Your task to perform on an android device: install app "Facebook Messenger" Image 0: 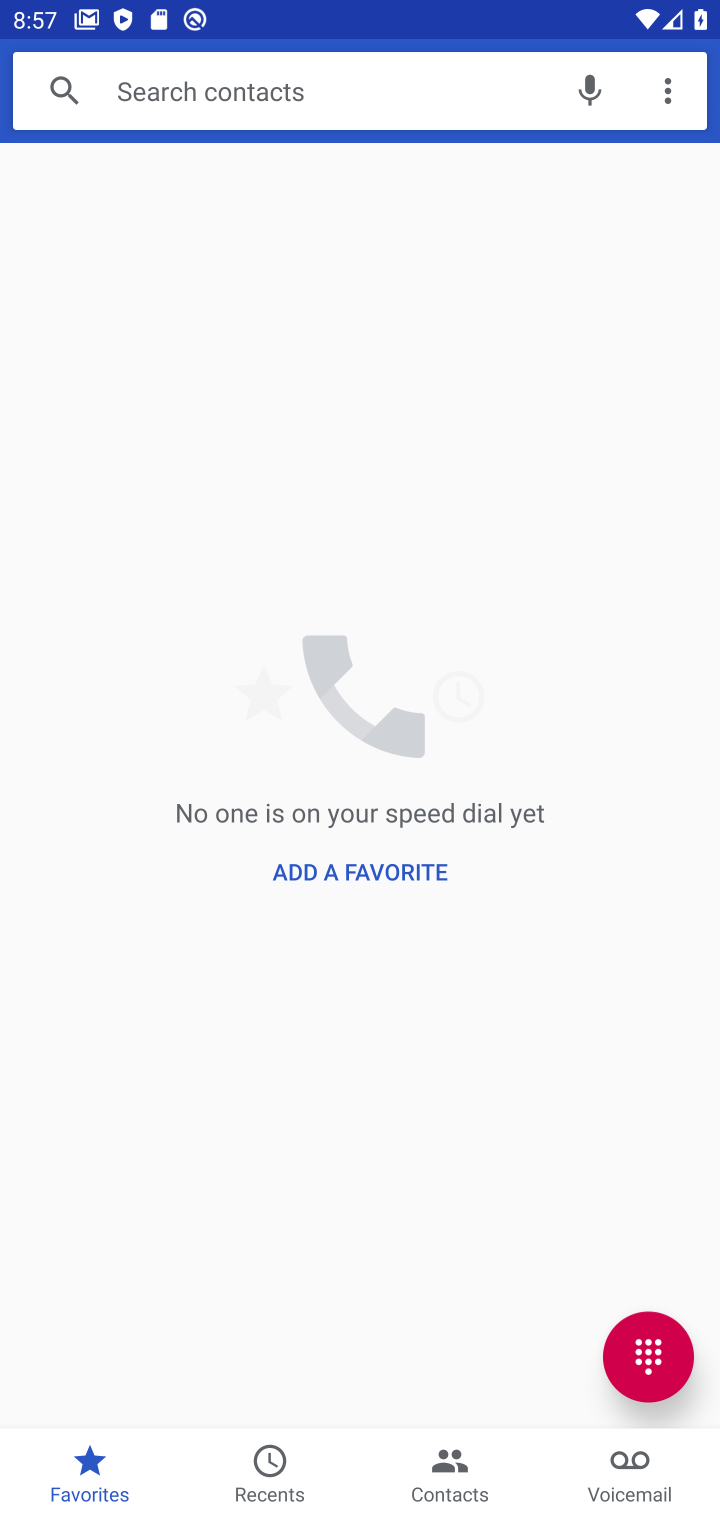
Step 0: press home button
Your task to perform on an android device: install app "Facebook Messenger" Image 1: 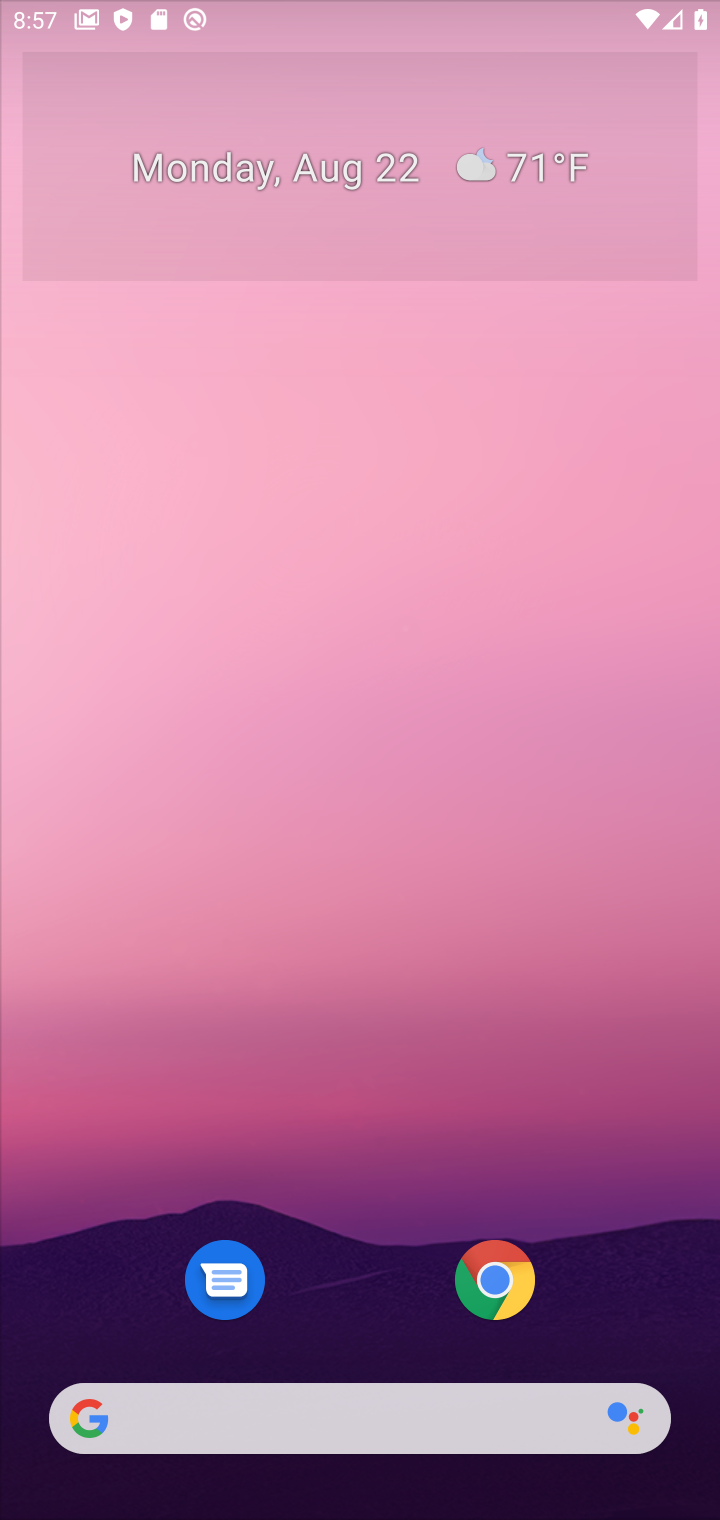
Step 1: drag from (273, 761) to (308, 20)
Your task to perform on an android device: install app "Facebook Messenger" Image 2: 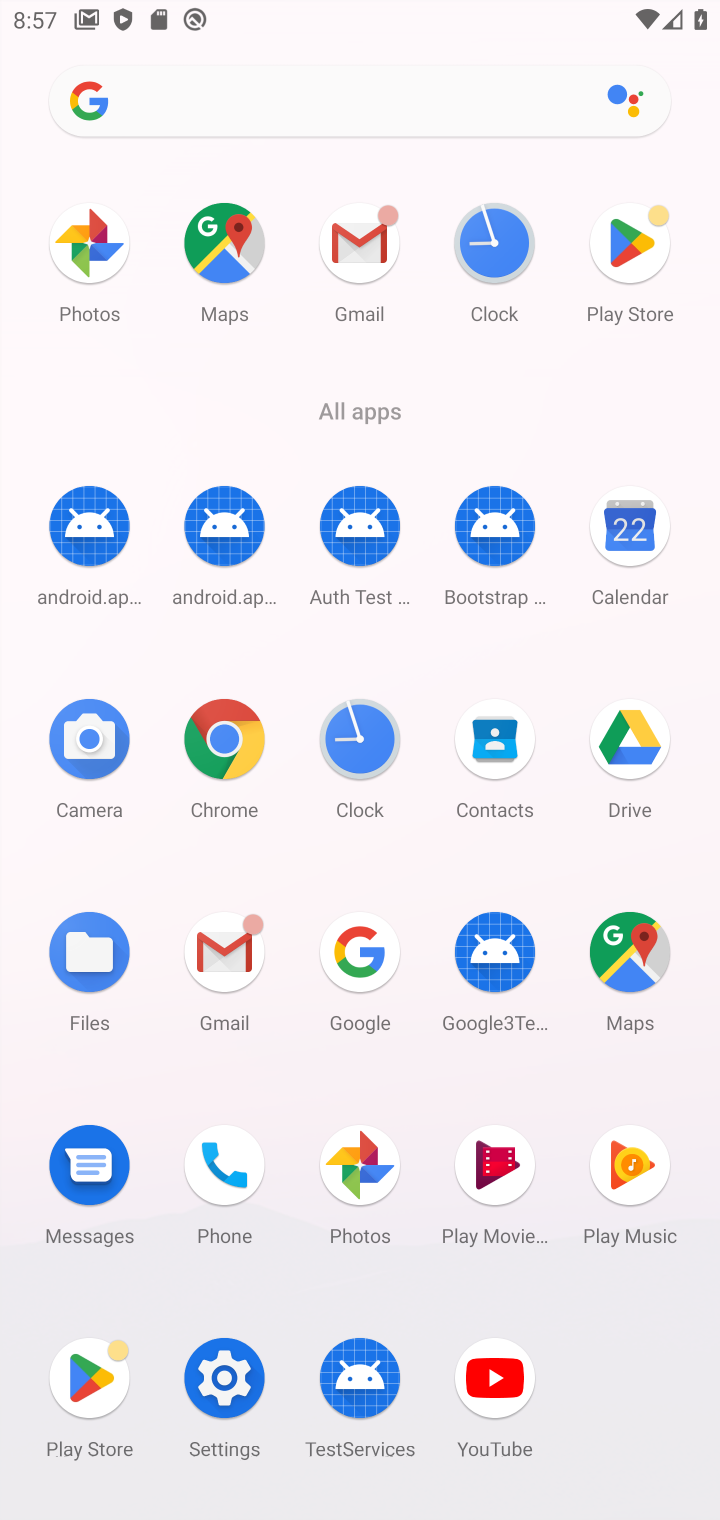
Step 2: click (636, 229)
Your task to perform on an android device: install app "Facebook Messenger" Image 3: 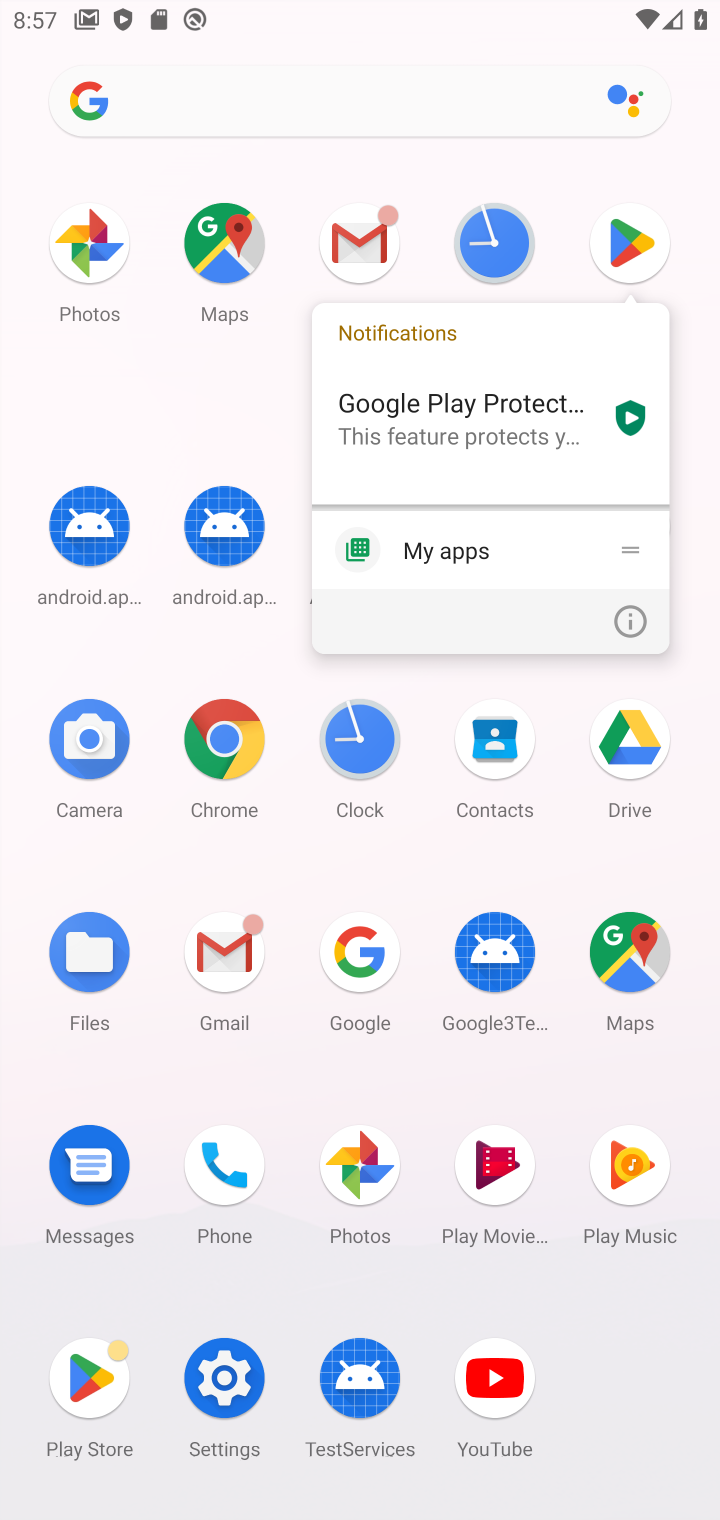
Step 3: click (636, 227)
Your task to perform on an android device: install app "Facebook Messenger" Image 4: 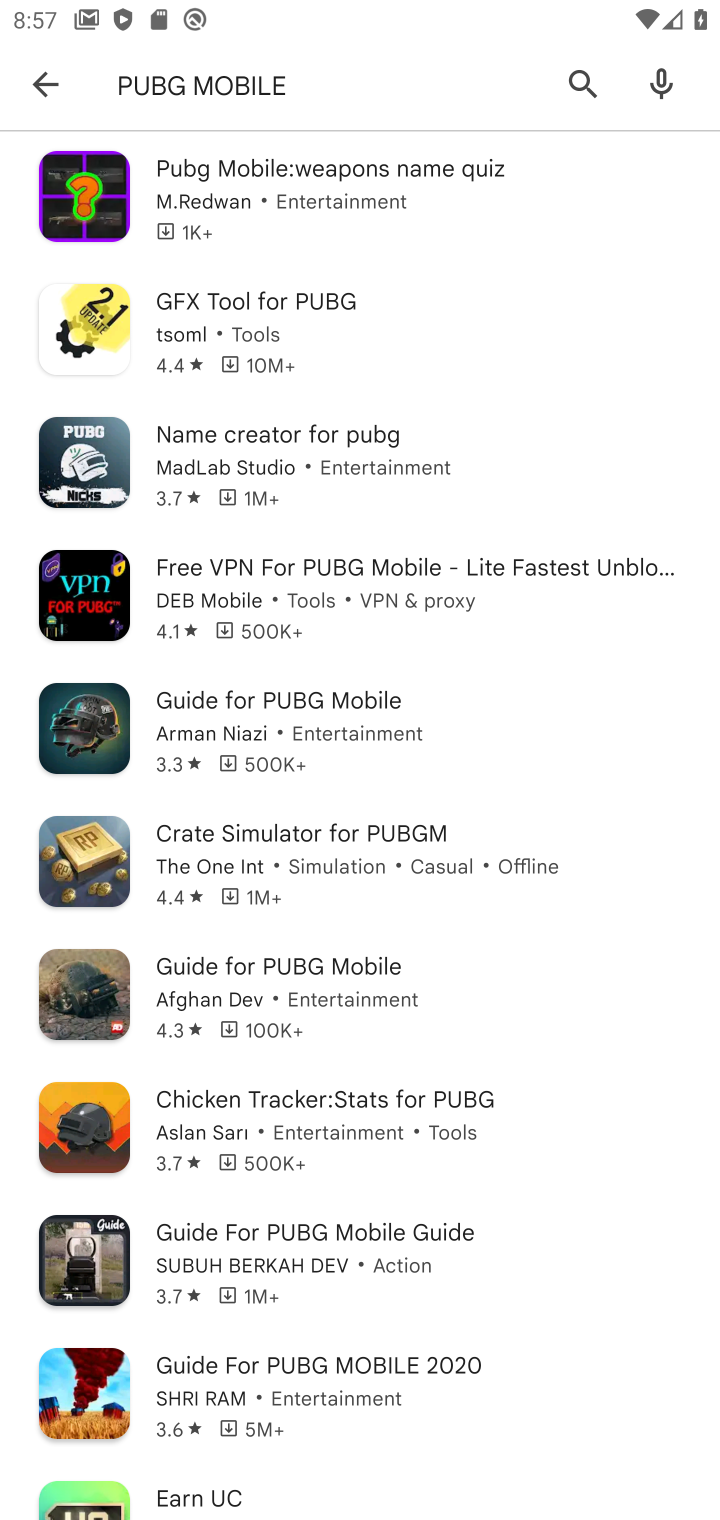
Step 4: press back button
Your task to perform on an android device: install app "Facebook Messenger" Image 5: 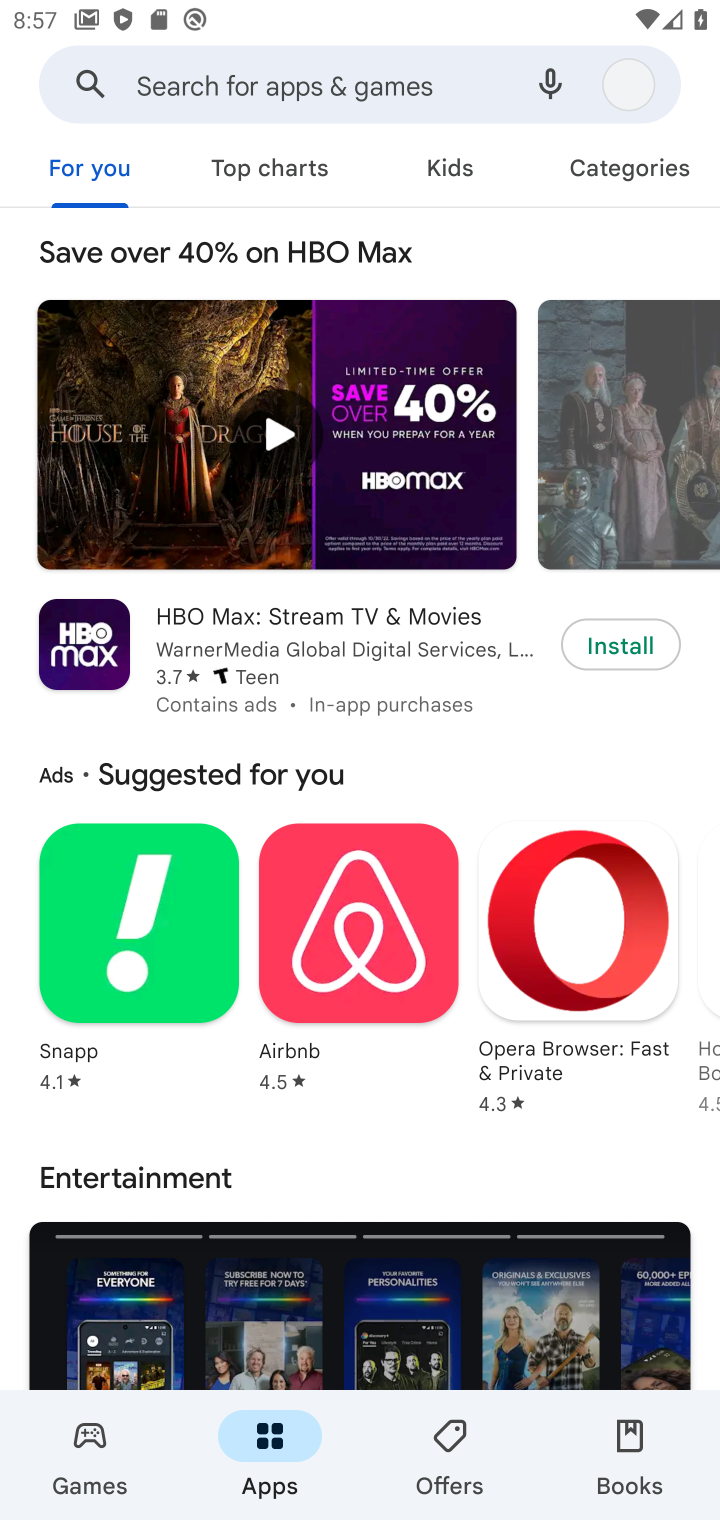
Step 5: click (235, 93)
Your task to perform on an android device: install app "Facebook Messenger" Image 6: 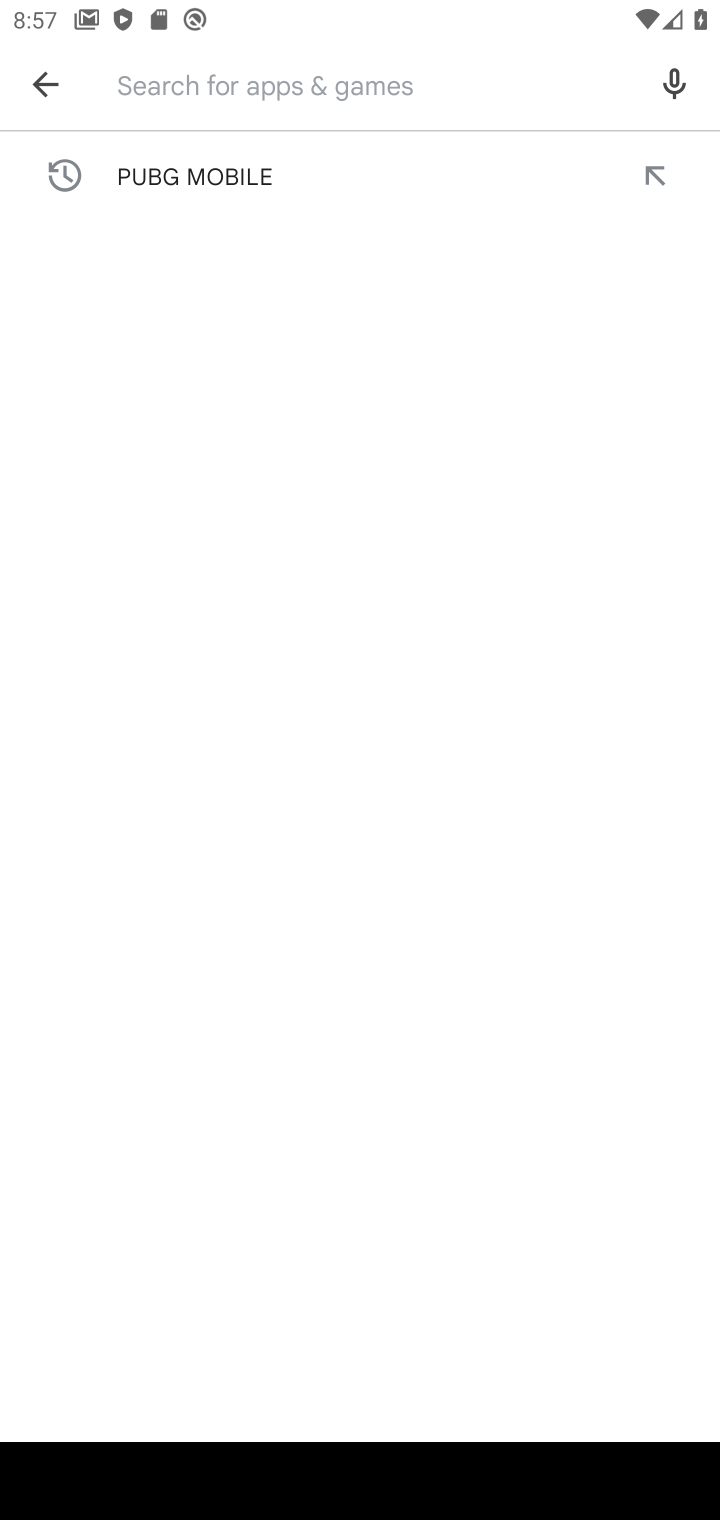
Step 6: type "Facebook Messenger"
Your task to perform on an android device: install app "Facebook Messenger" Image 7: 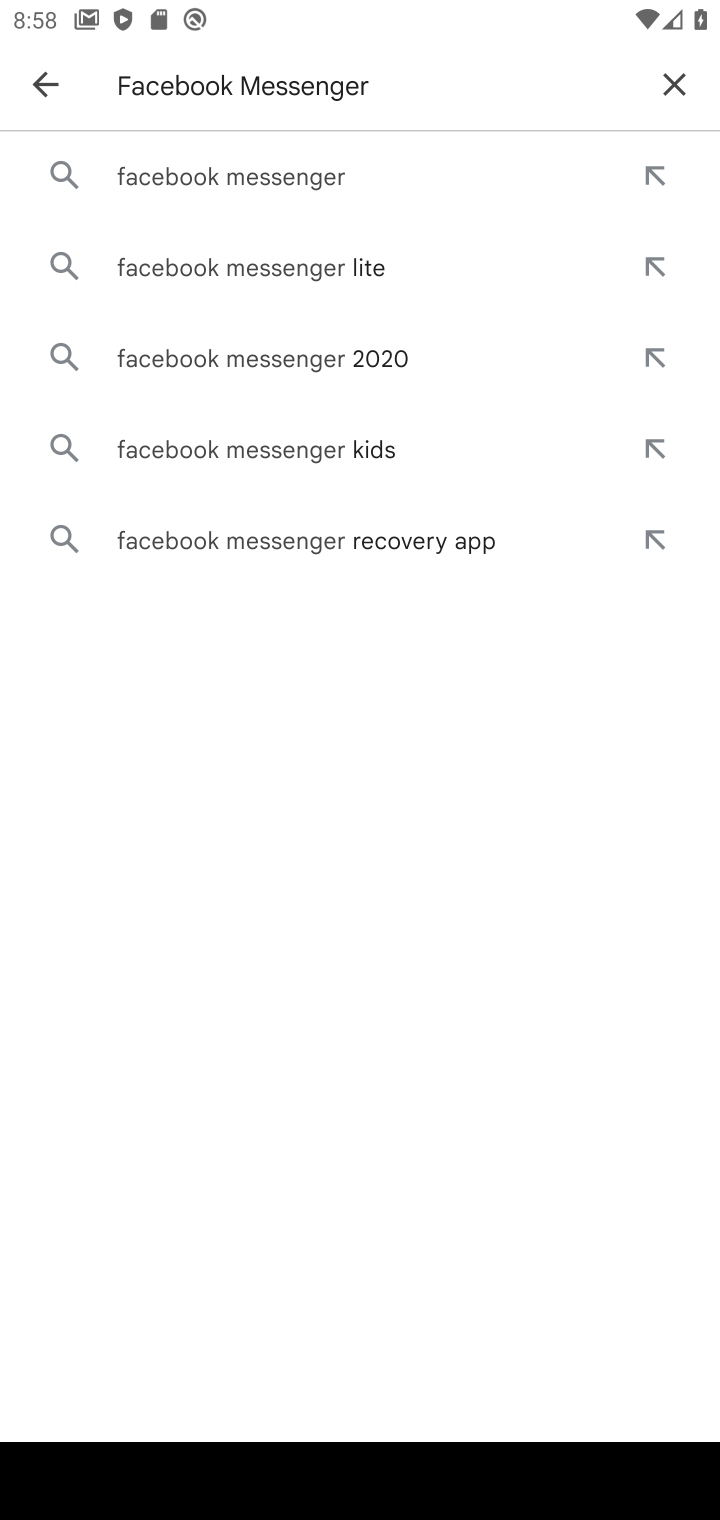
Step 7: press enter
Your task to perform on an android device: install app "Facebook Messenger" Image 8: 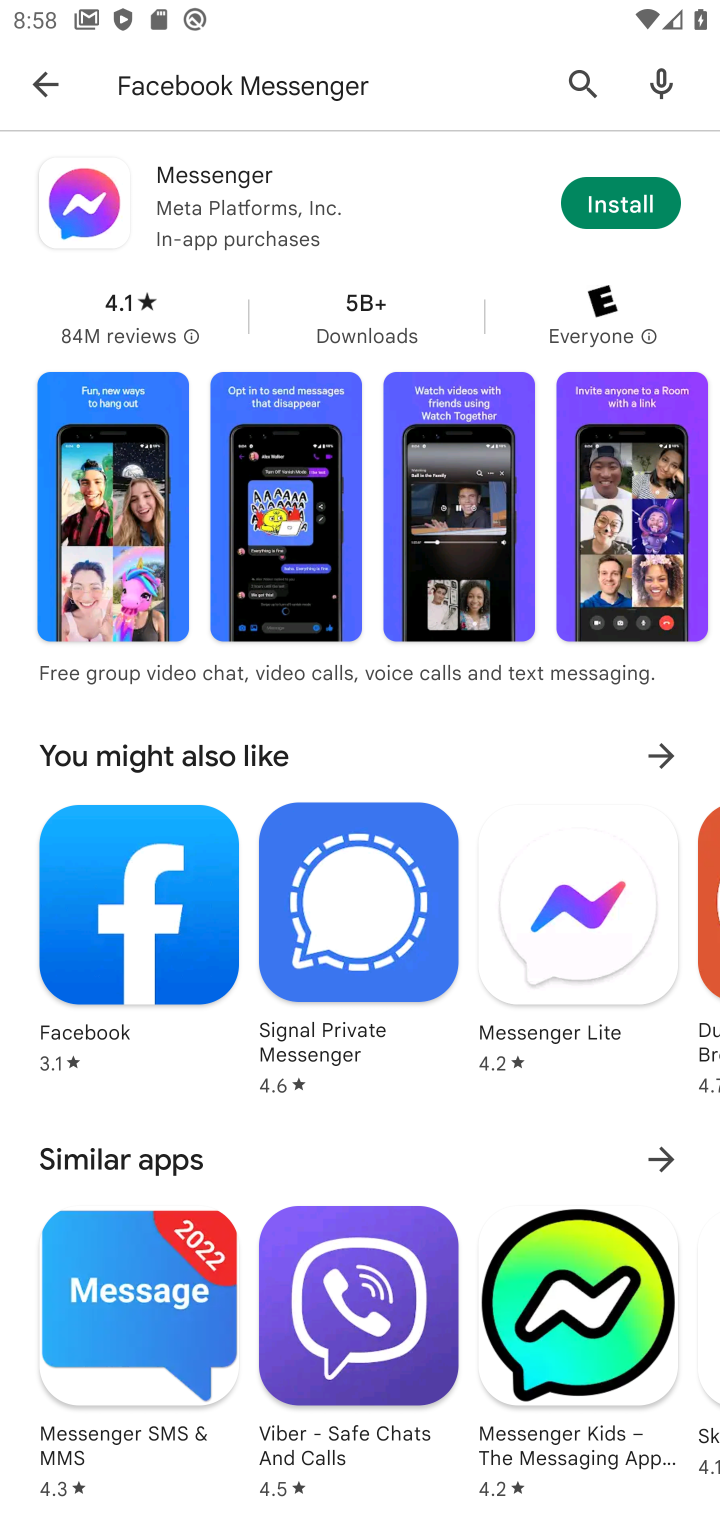
Step 8: click (613, 228)
Your task to perform on an android device: install app "Facebook Messenger" Image 9: 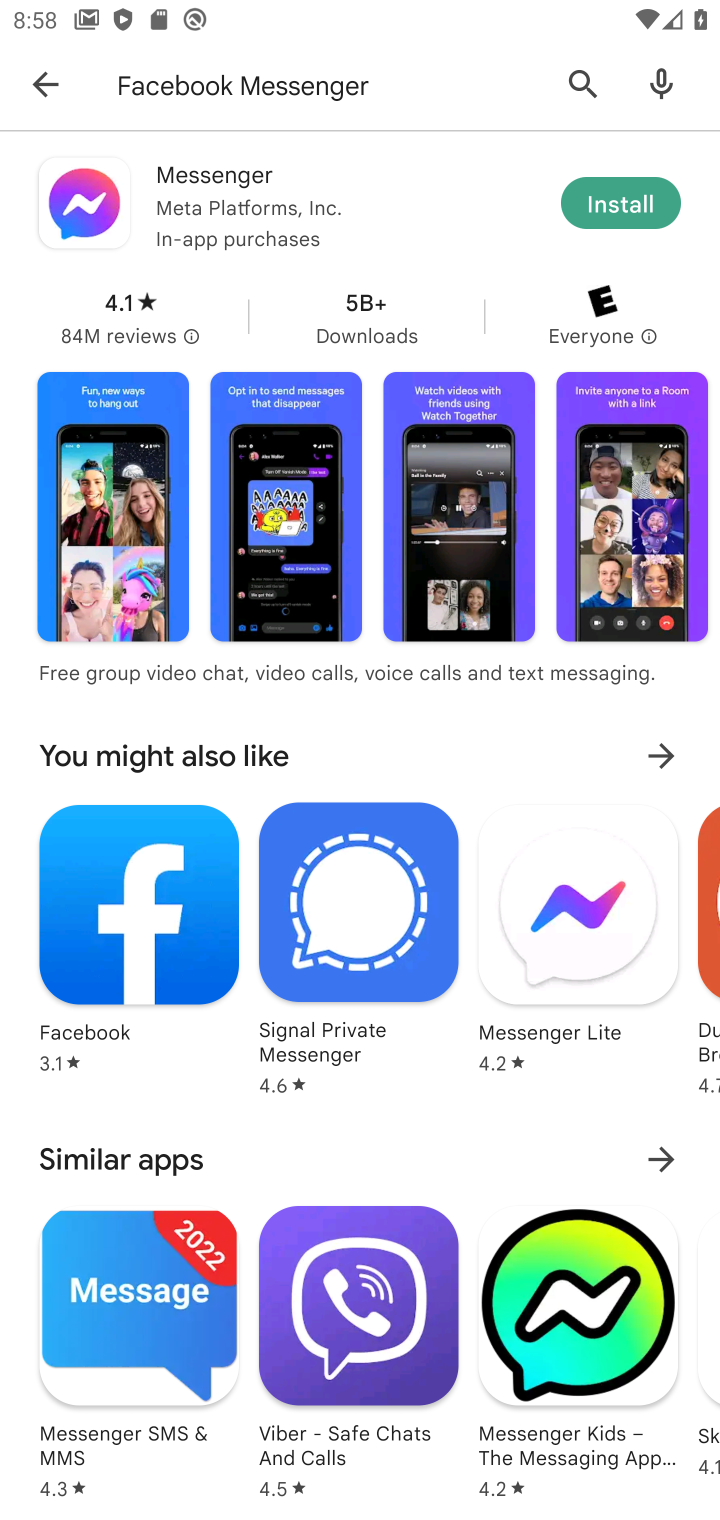
Step 9: click (655, 211)
Your task to perform on an android device: install app "Facebook Messenger" Image 10: 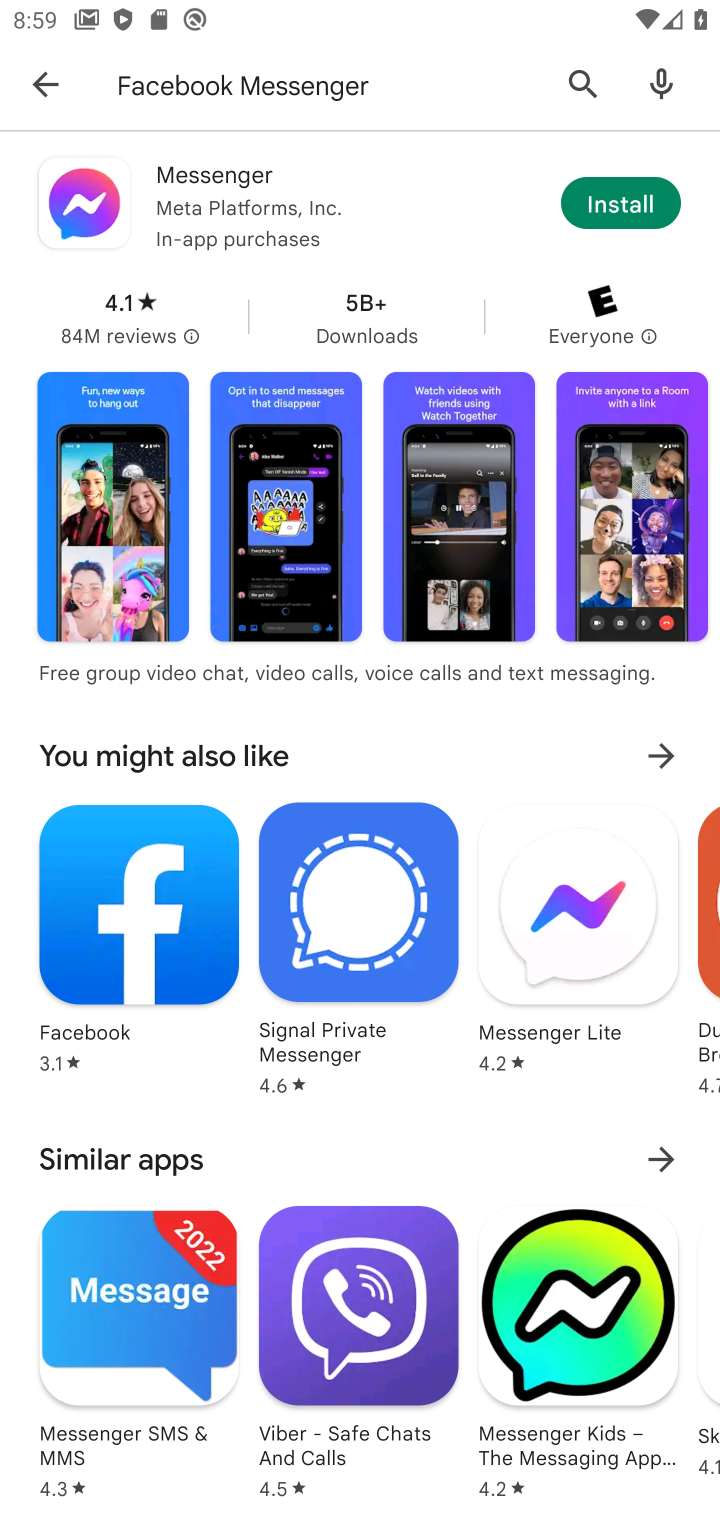
Step 10: click (632, 211)
Your task to perform on an android device: install app "Facebook Messenger" Image 11: 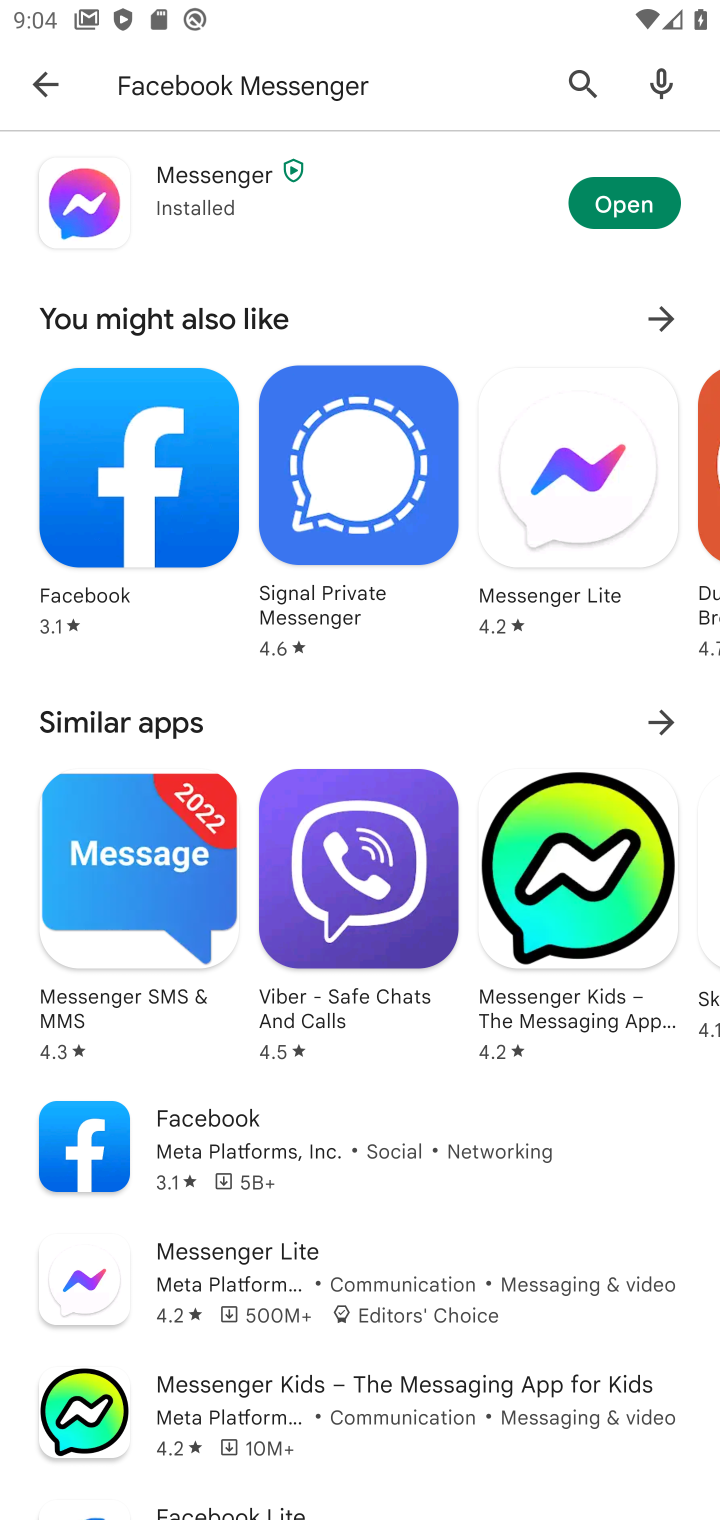
Step 11: task complete